Your task to perform on an android device: turn off airplane mode Image 0: 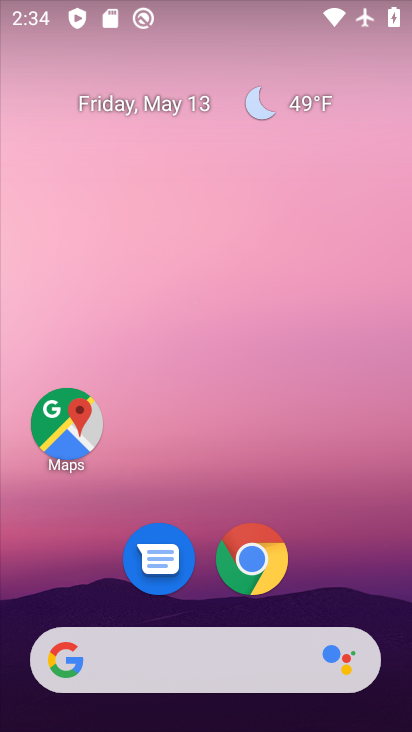
Step 0: drag from (398, 609) to (322, 65)
Your task to perform on an android device: turn off airplane mode Image 1: 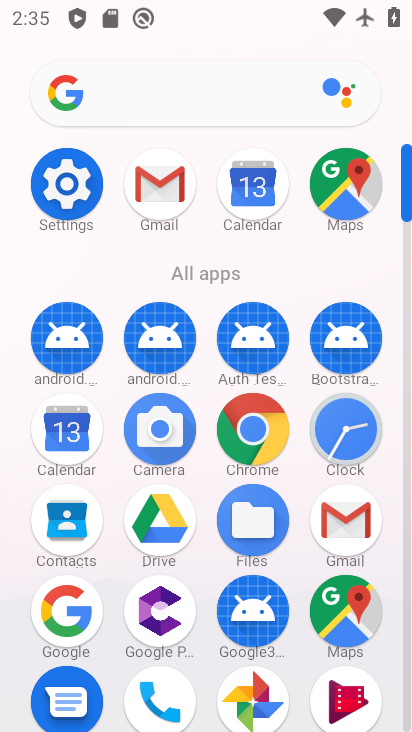
Step 1: click (409, 694)
Your task to perform on an android device: turn off airplane mode Image 2: 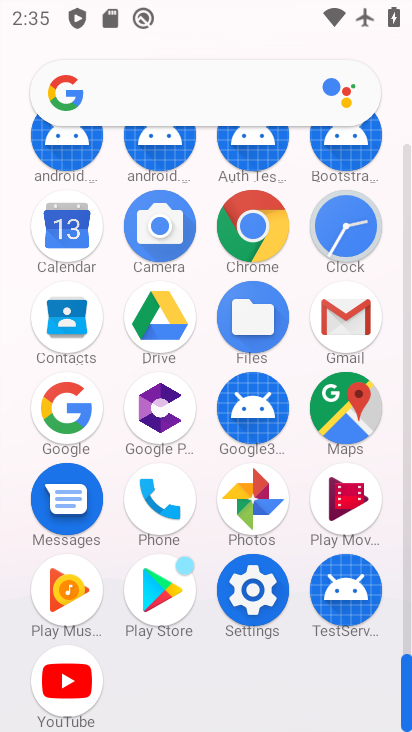
Step 2: click (251, 590)
Your task to perform on an android device: turn off airplane mode Image 3: 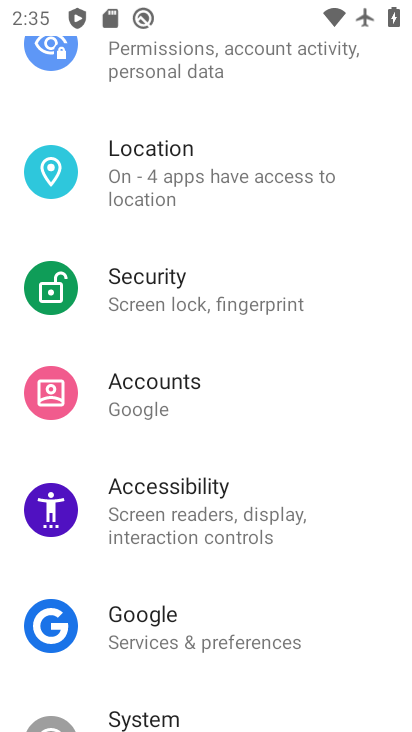
Step 3: drag from (366, 230) to (334, 508)
Your task to perform on an android device: turn off airplane mode Image 4: 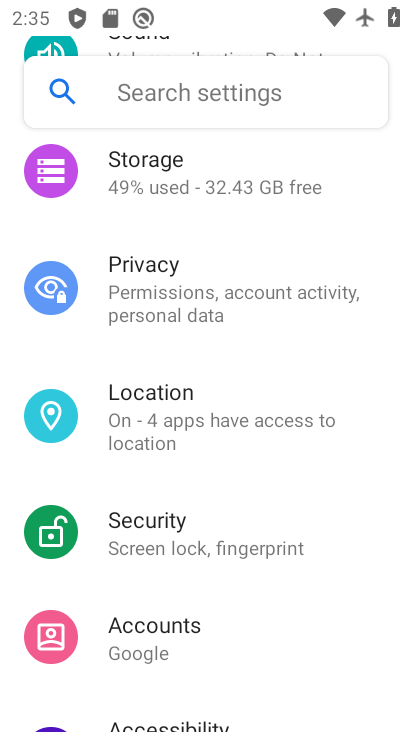
Step 4: drag from (338, 194) to (355, 416)
Your task to perform on an android device: turn off airplane mode Image 5: 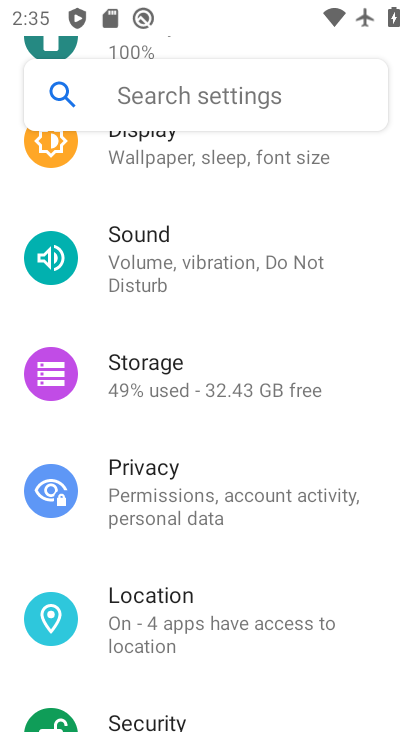
Step 5: drag from (333, 180) to (363, 492)
Your task to perform on an android device: turn off airplane mode Image 6: 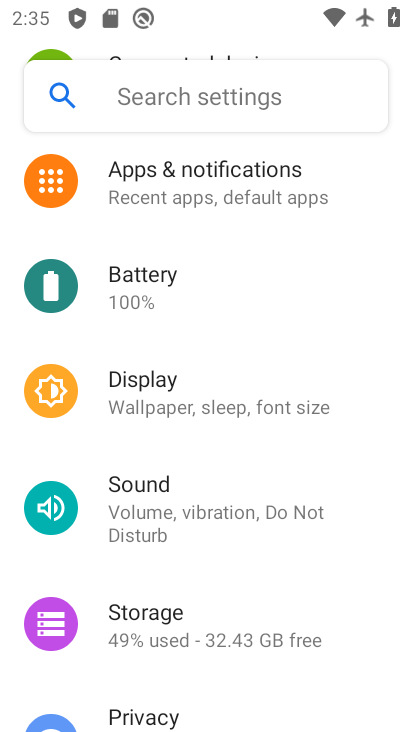
Step 6: drag from (328, 279) to (358, 554)
Your task to perform on an android device: turn off airplane mode Image 7: 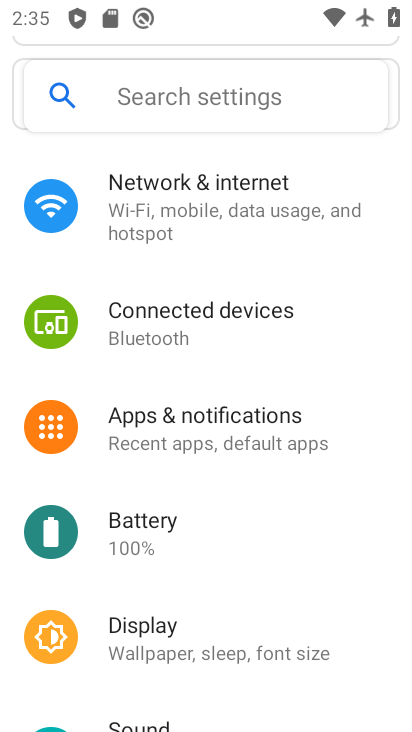
Step 7: click (195, 192)
Your task to perform on an android device: turn off airplane mode Image 8: 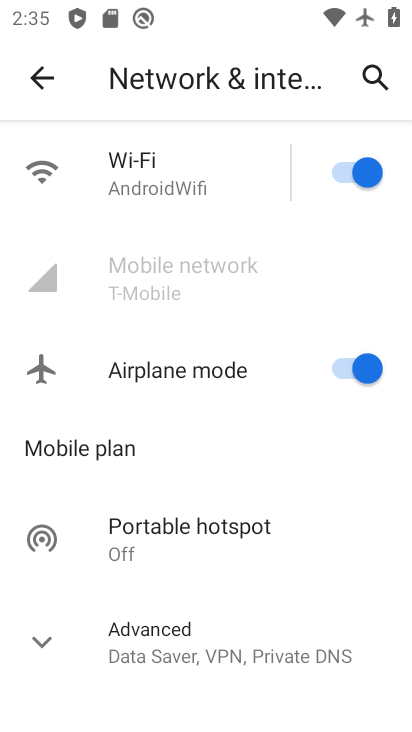
Step 8: click (342, 361)
Your task to perform on an android device: turn off airplane mode Image 9: 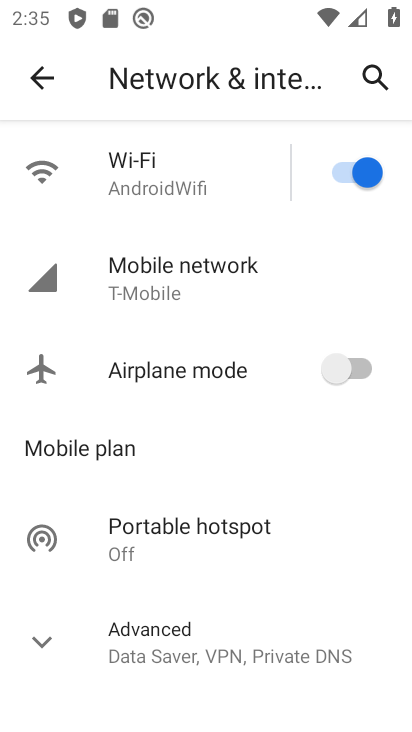
Step 9: task complete